Your task to perform on an android device: open chrome privacy settings Image 0: 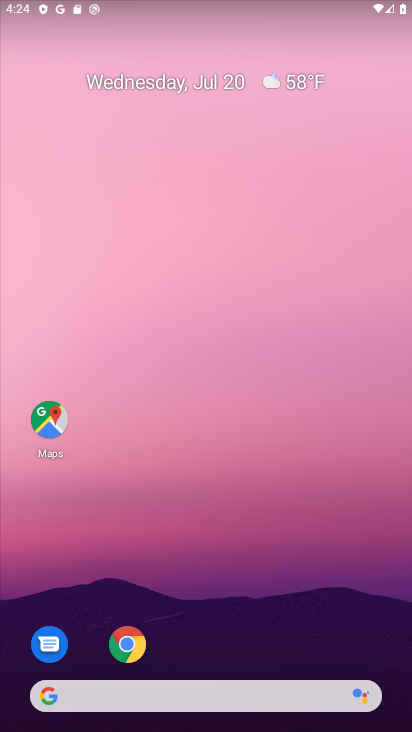
Step 0: press home button
Your task to perform on an android device: open chrome privacy settings Image 1: 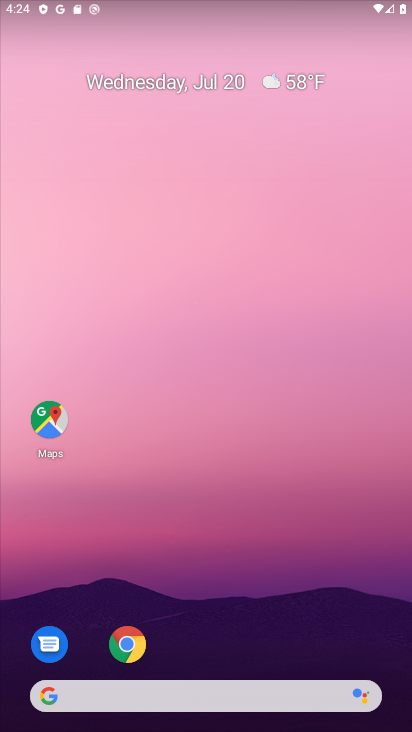
Step 1: click (48, 701)
Your task to perform on an android device: open chrome privacy settings Image 2: 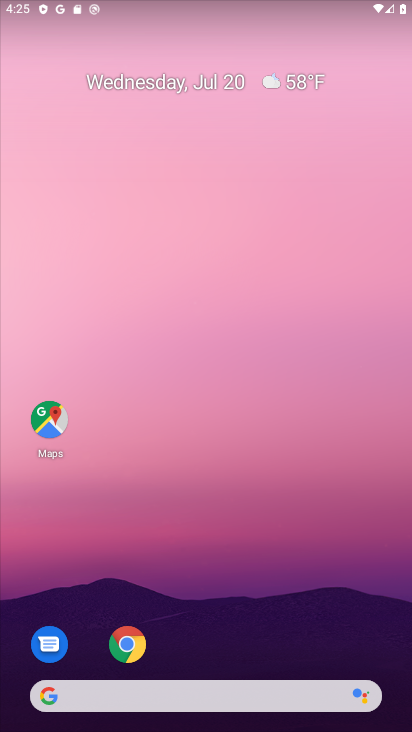
Step 2: drag from (235, 655) to (192, 161)
Your task to perform on an android device: open chrome privacy settings Image 3: 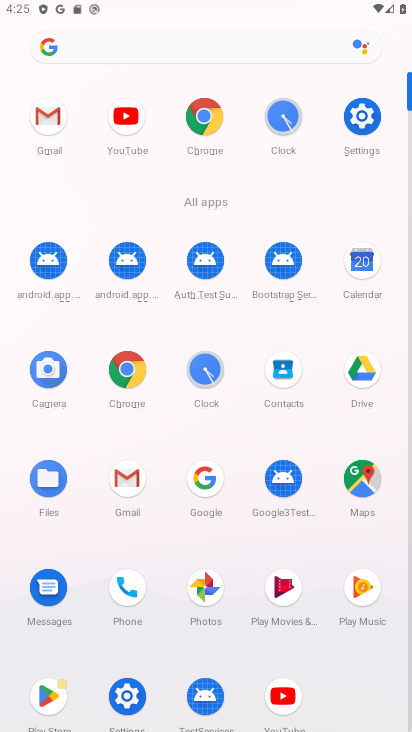
Step 3: click (375, 116)
Your task to perform on an android device: open chrome privacy settings Image 4: 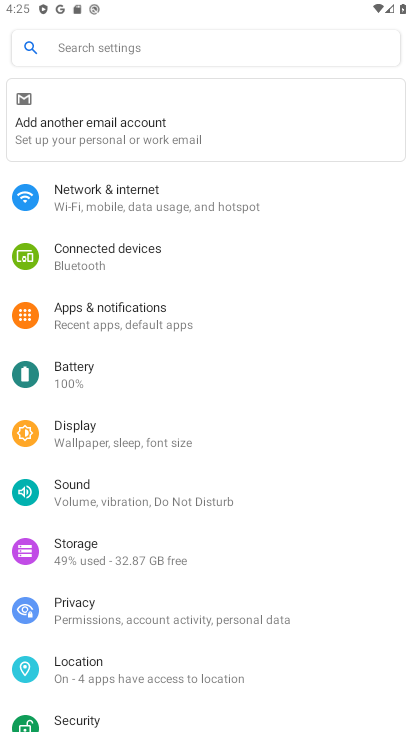
Step 4: click (88, 610)
Your task to perform on an android device: open chrome privacy settings Image 5: 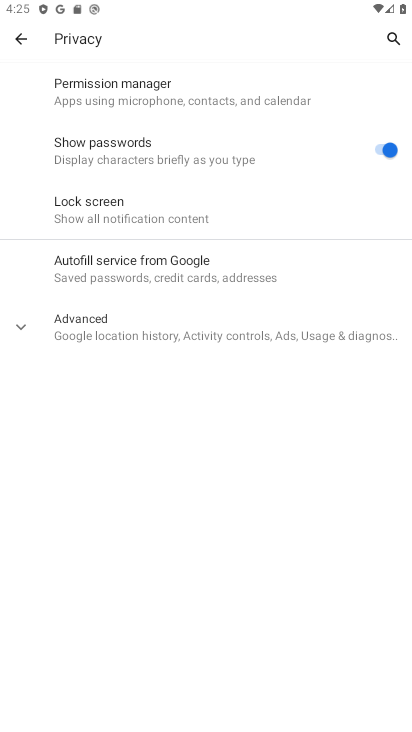
Step 5: task complete